Your task to perform on an android device: turn pop-ups on in chrome Image 0: 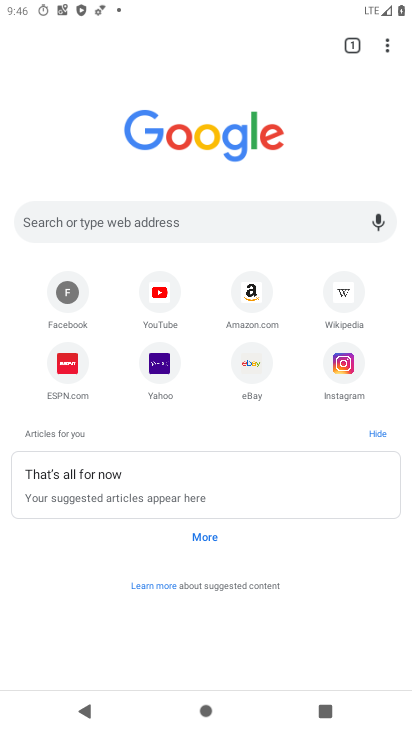
Step 0: drag from (383, 39) to (209, 372)
Your task to perform on an android device: turn pop-ups on in chrome Image 1: 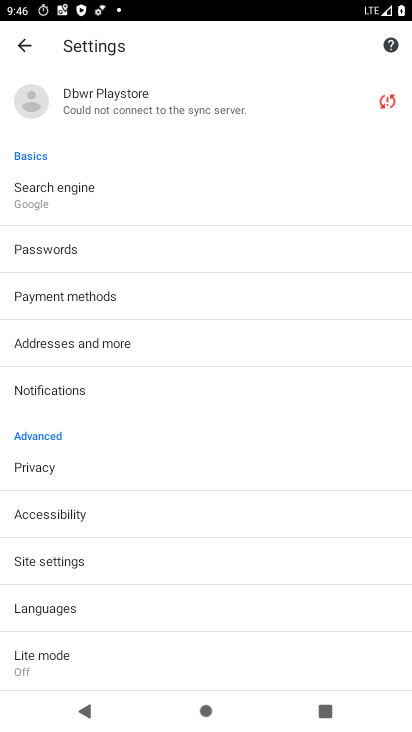
Step 1: drag from (200, 552) to (205, 148)
Your task to perform on an android device: turn pop-ups on in chrome Image 2: 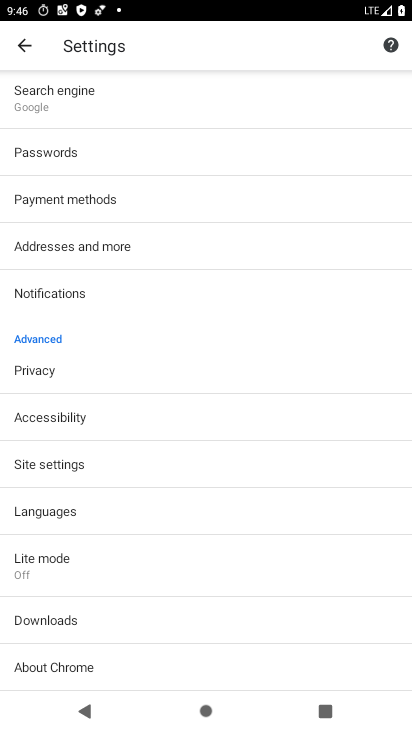
Step 2: click (65, 463)
Your task to perform on an android device: turn pop-ups on in chrome Image 3: 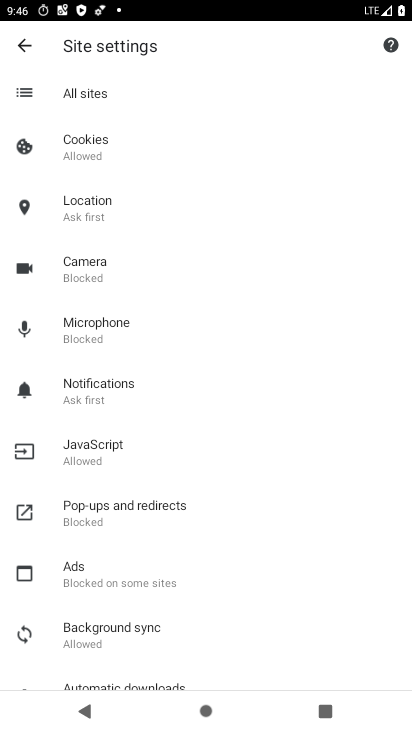
Step 3: drag from (248, 569) to (290, 157)
Your task to perform on an android device: turn pop-ups on in chrome Image 4: 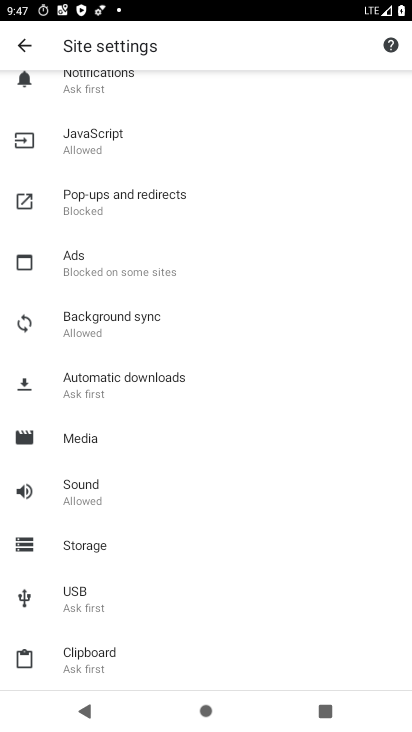
Step 4: click (161, 198)
Your task to perform on an android device: turn pop-ups on in chrome Image 5: 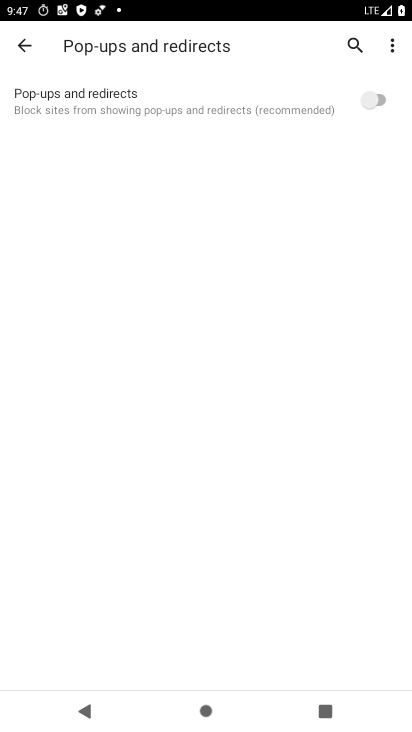
Step 5: click (373, 104)
Your task to perform on an android device: turn pop-ups on in chrome Image 6: 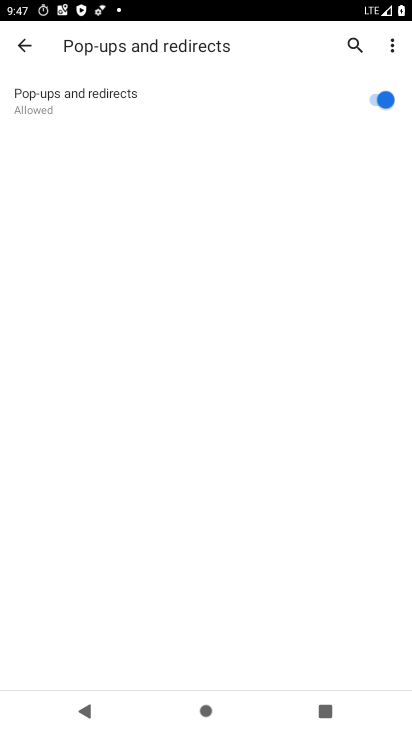
Step 6: task complete